Your task to perform on an android device: Toggle the flashlight Image 0: 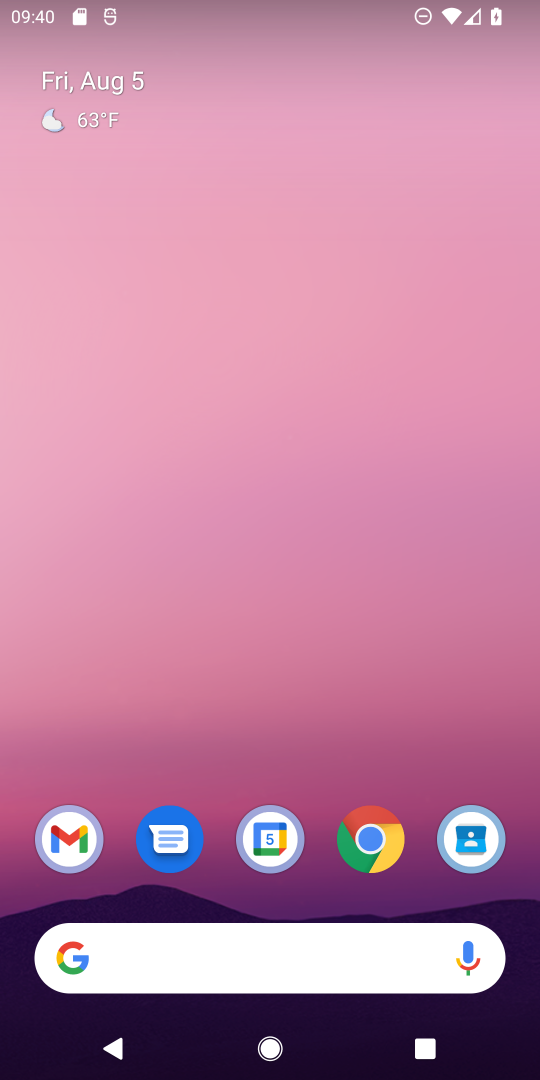
Step 0: drag from (321, 908) to (314, 103)
Your task to perform on an android device: Toggle the flashlight Image 1: 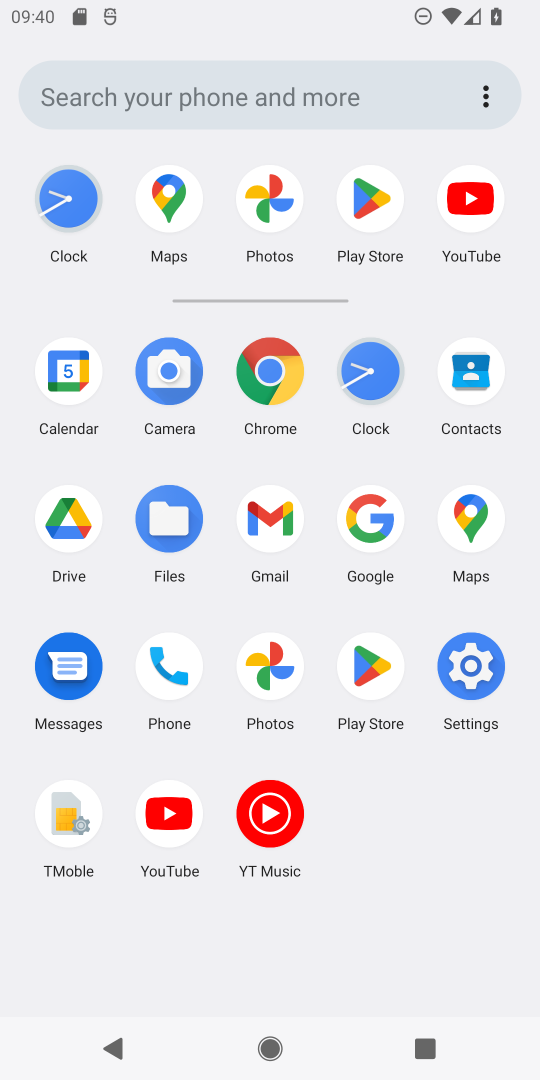
Step 1: click (474, 669)
Your task to perform on an android device: Toggle the flashlight Image 2: 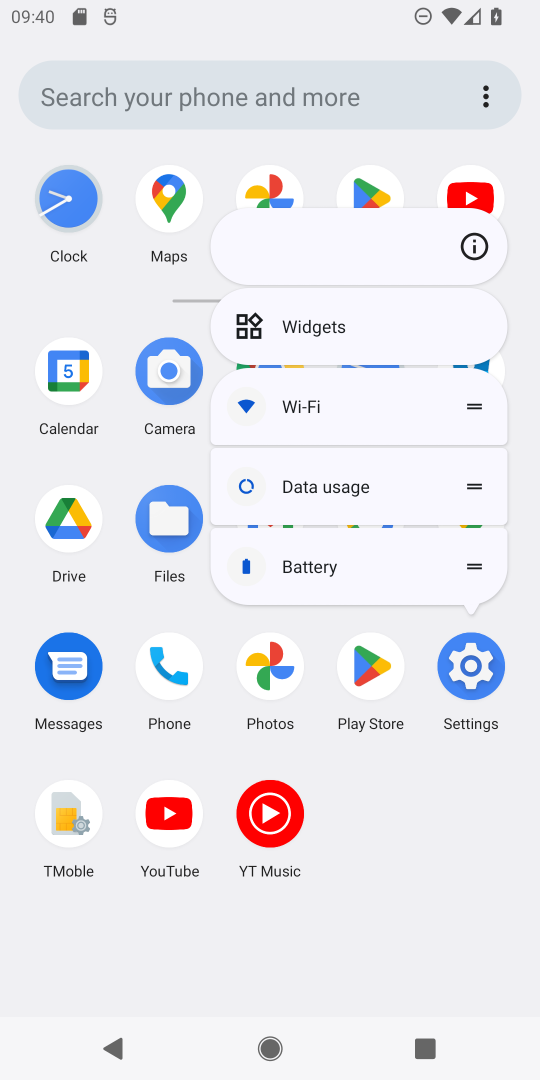
Step 2: click (470, 680)
Your task to perform on an android device: Toggle the flashlight Image 3: 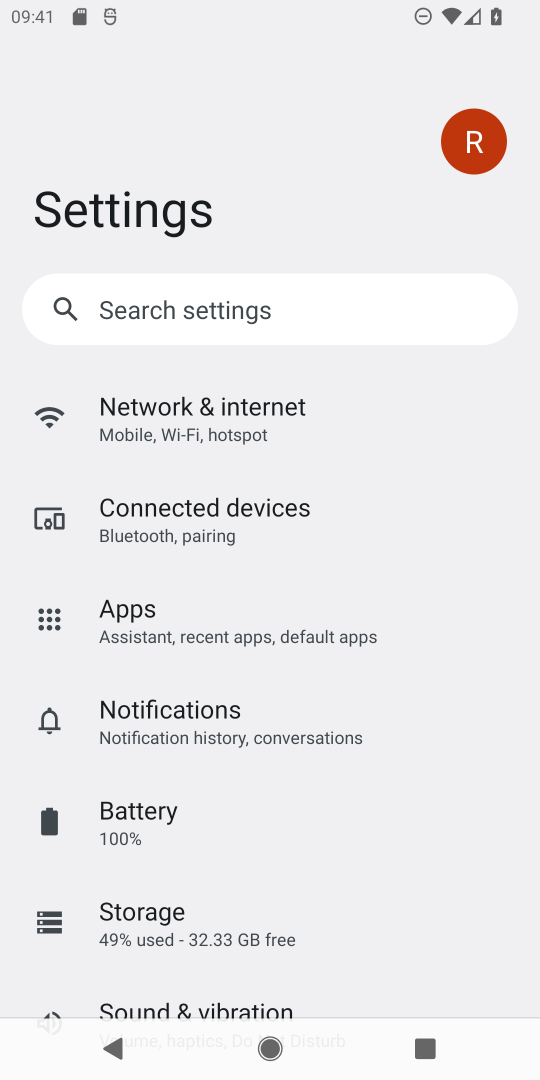
Step 3: task complete